Your task to perform on an android device: find snoozed emails in the gmail app Image 0: 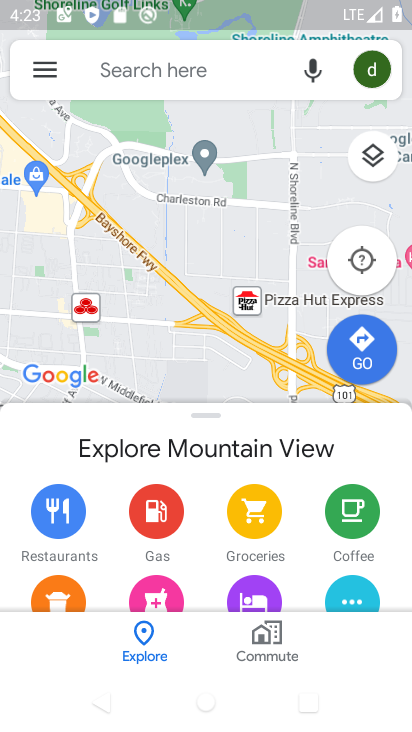
Step 0: press home button
Your task to perform on an android device: find snoozed emails in the gmail app Image 1: 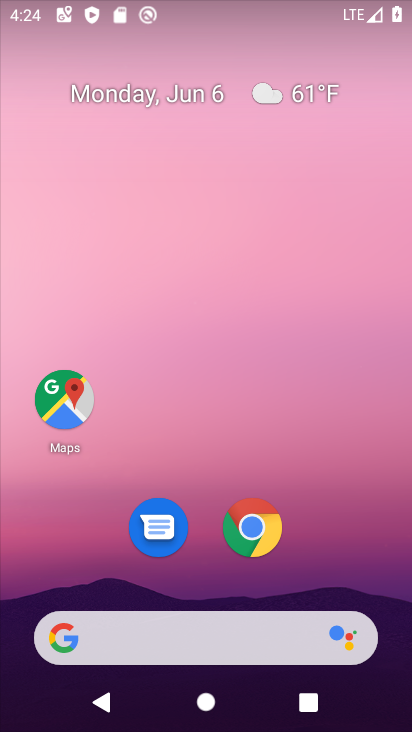
Step 1: drag from (348, 455) to (385, 16)
Your task to perform on an android device: find snoozed emails in the gmail app Image 2: 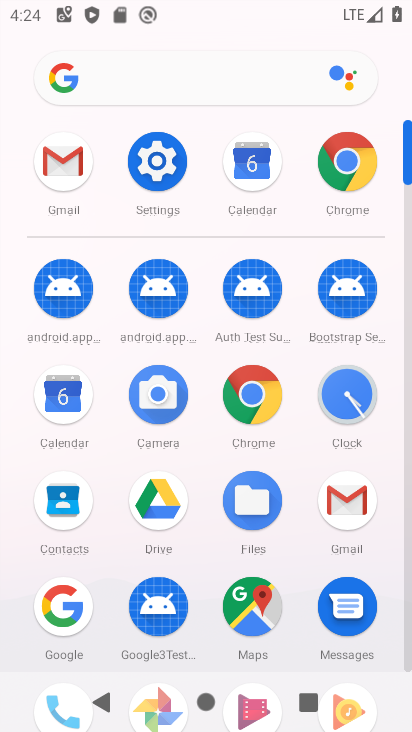
Step 2: click (63, 174)
Your task to perform on an android device: find snoozed emails in the gmail app Image 3: 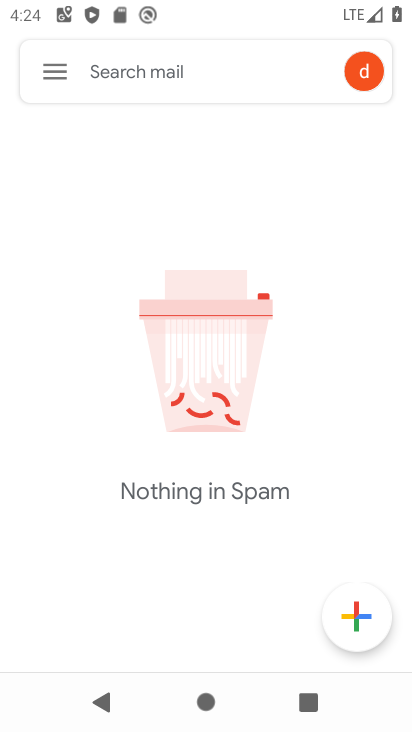
Step 3: click (53, 62)
Your task to perform on an android device: find snoozed emails in the gmail app Image 4: 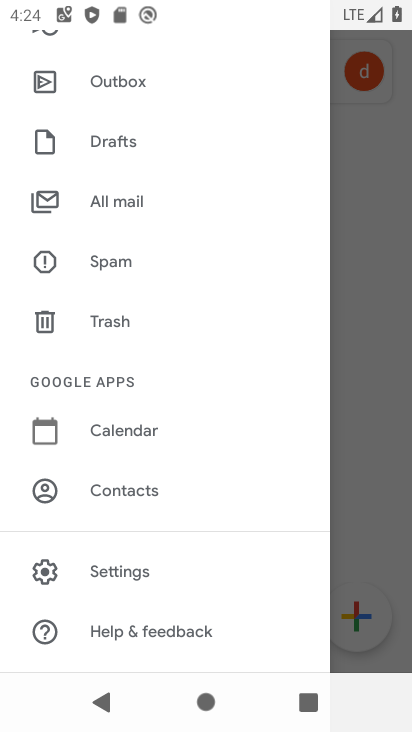
Step 4: click (145, 91)
Your task to perform on an android device: find snoozed emails in the gmail app Image 5: 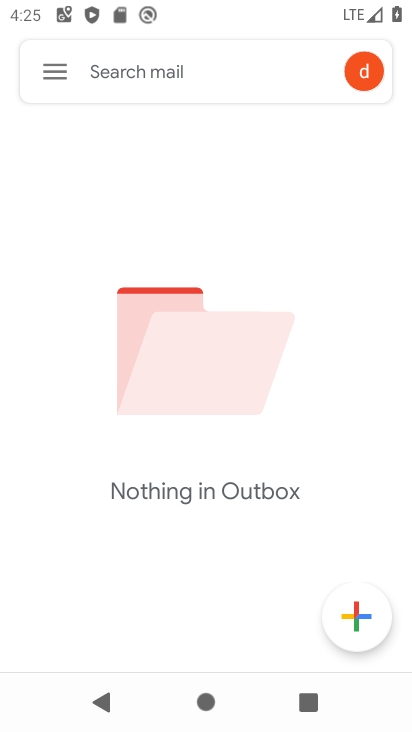
Step 5: click (46, 68)
Your task to perform on an android device: find snoozed emails in the gmail app Image 6: 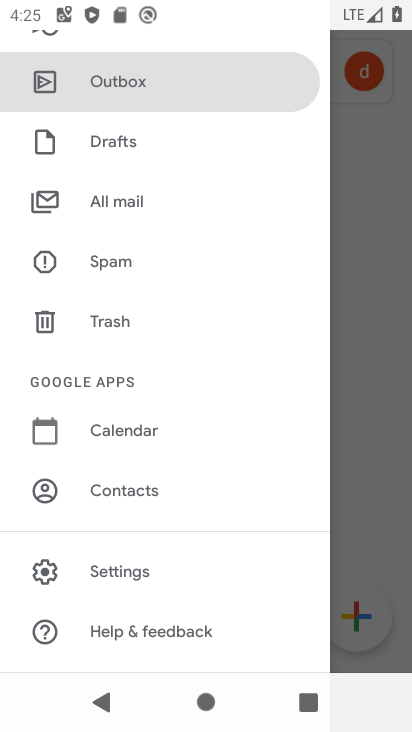
Step 6: drag from (161, 206) to (169, 468)
Your task to perform on an android device: find snoozed emails in the gmail app Image 7: 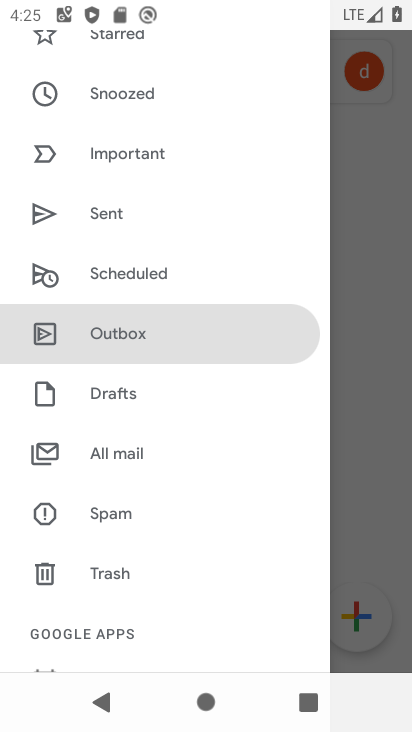
Step 7: click (163, 84)
Your task to perform on an android device: find snoozed emails in the gmail app Image 8: 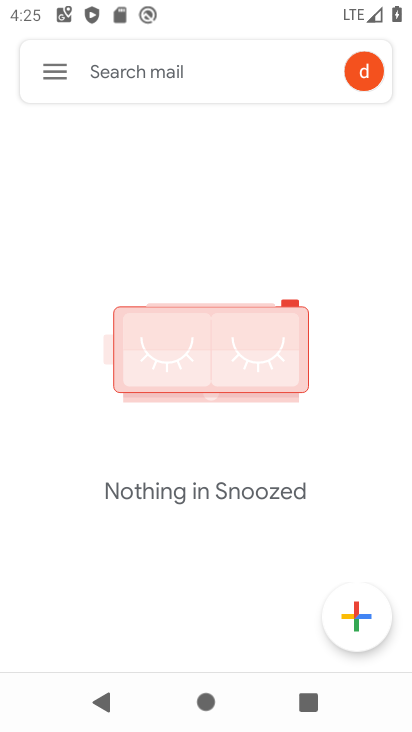
Step 8: task complete